Your task to perform on an android device: toggle sleep mode Image 0: 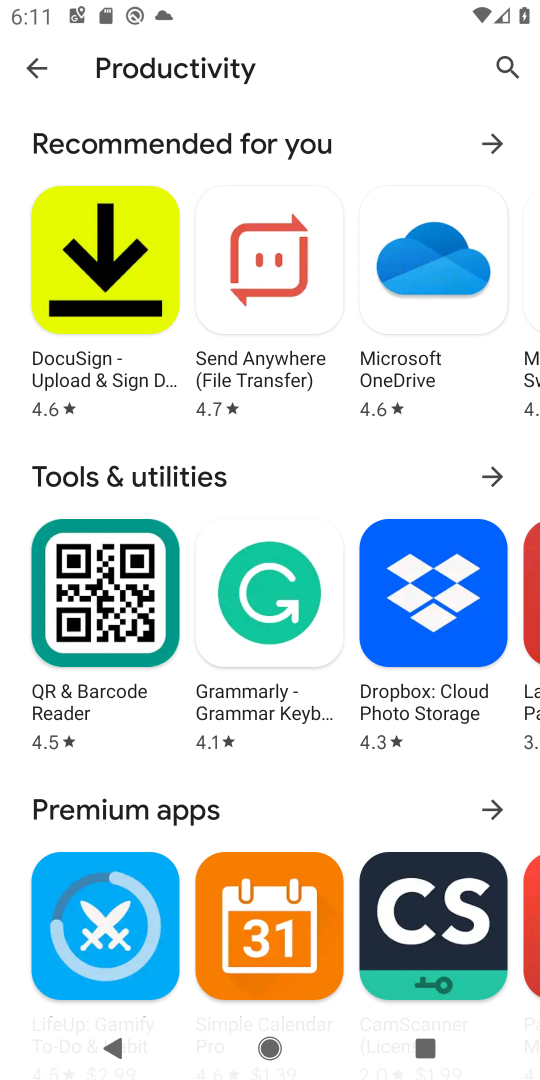
Step 0: press home button
Your task to perform on an android device: toggle sleep mode Image 1: 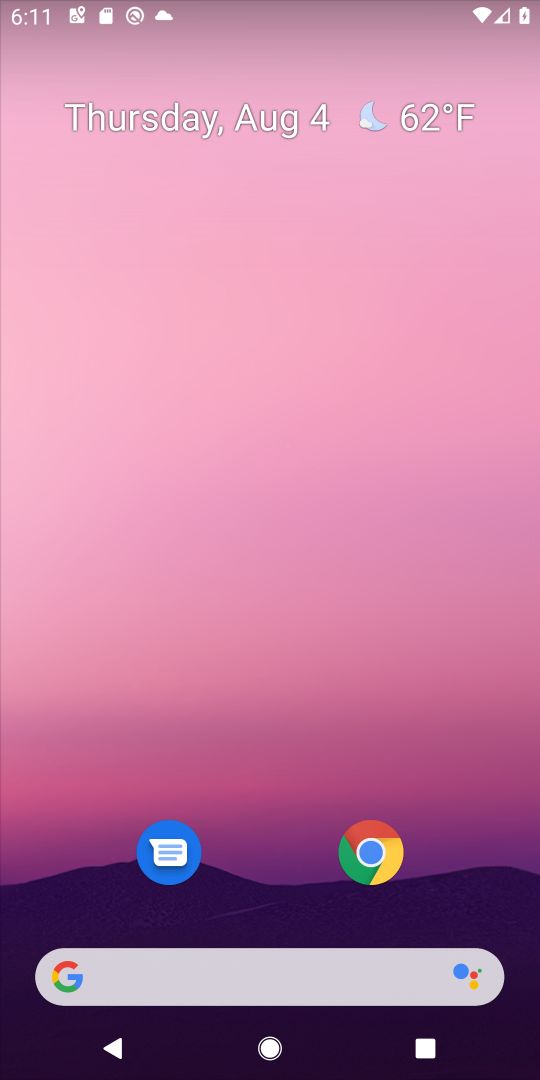
Step 1: drag from (257, 709) to (264, 196)
Your task to perform on an android device: toggle sleep mode Image 2: 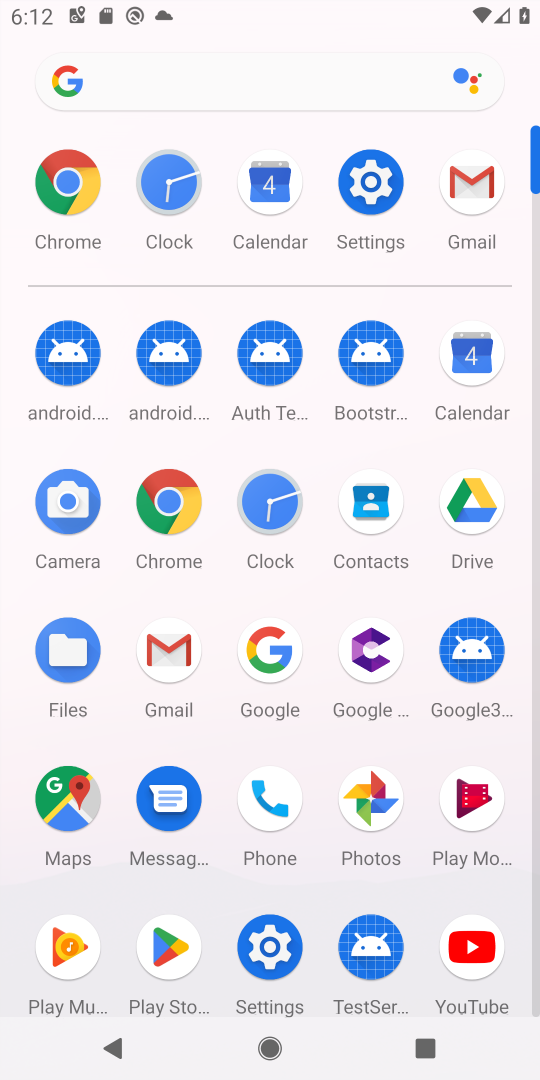
Step 2: click (261, 943)
Your task to perform on an android device: toggle sleep mode Image 3: 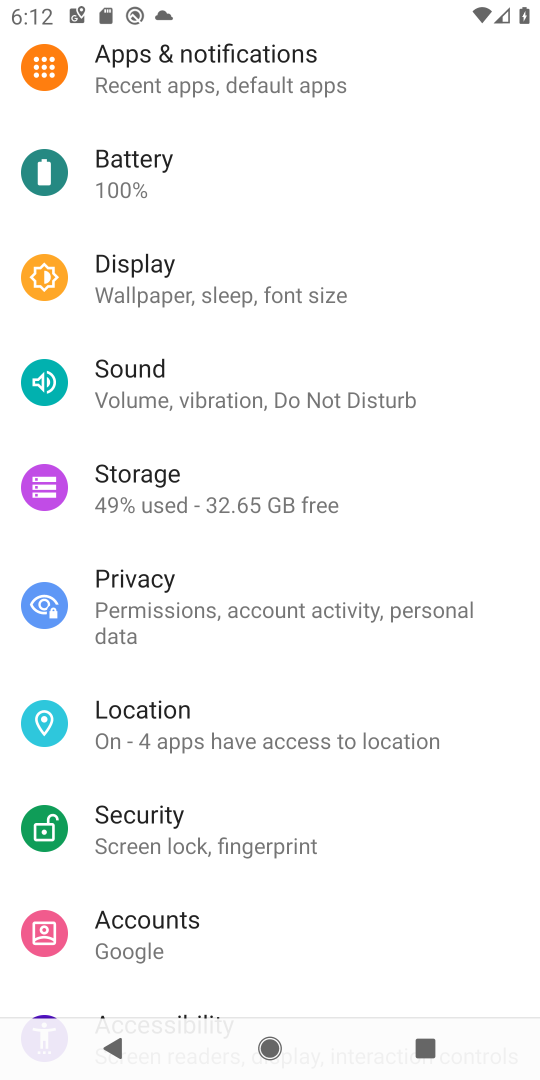
Step 3: task complete